Your task to perform on an android device: turn off location Image 0: 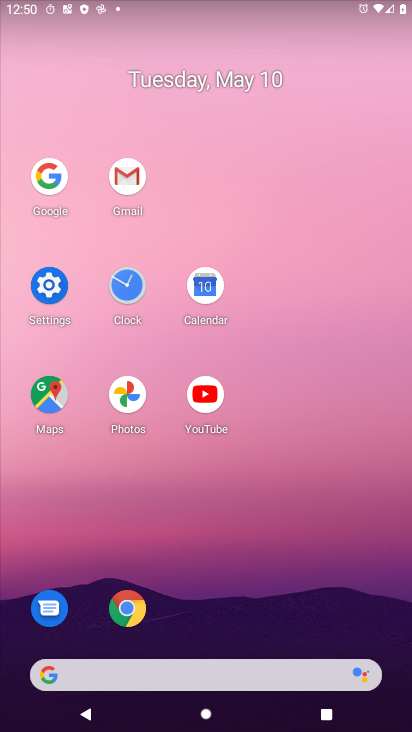
Step 0: click (46, 293)
Your task to perform on an android device: turn off location Image 1: 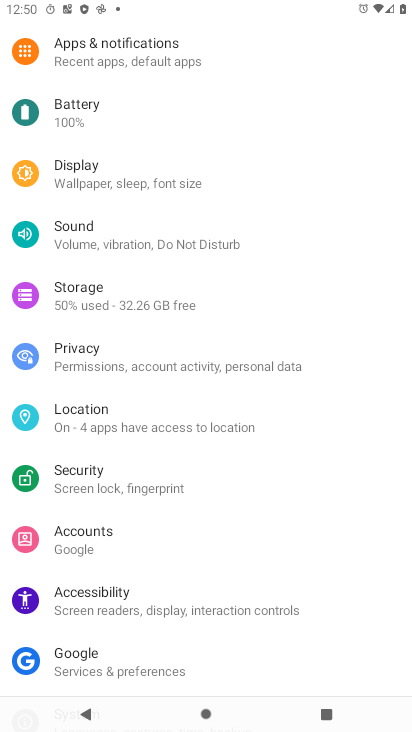
Step 1: click (223, 428)
Your task to perform on an android device: turn off location Image 2: 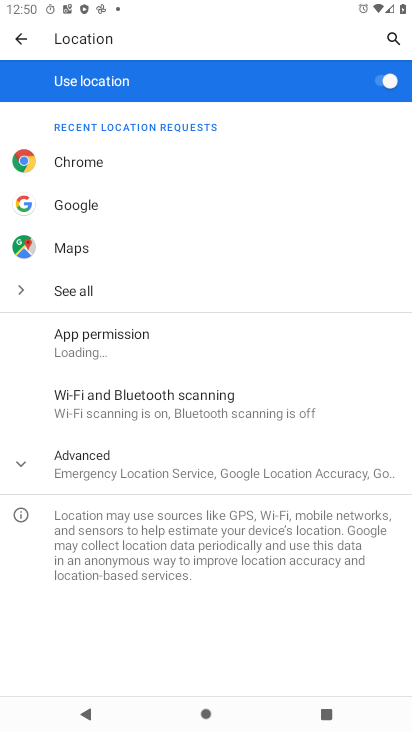
Step 2: click (379, 83)
Your task to perform on an android device: turn off location Image 3: 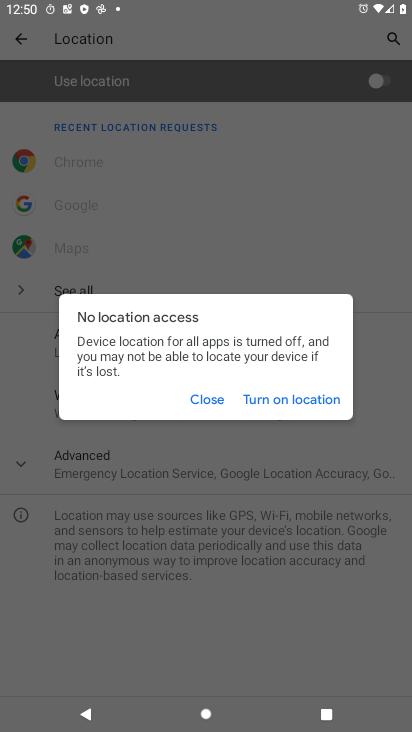
Step 3: task complete